Your task to perform on an android device: Open wifi settings Image 0: 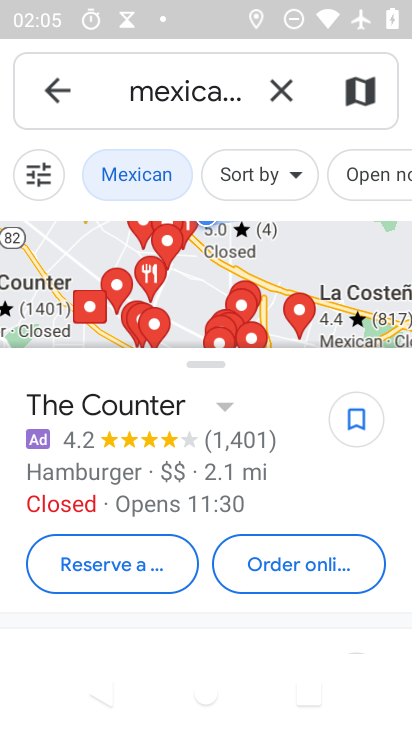
Step 0: press home button
Your task to perform on an android device: Open wifi settings Image 1: 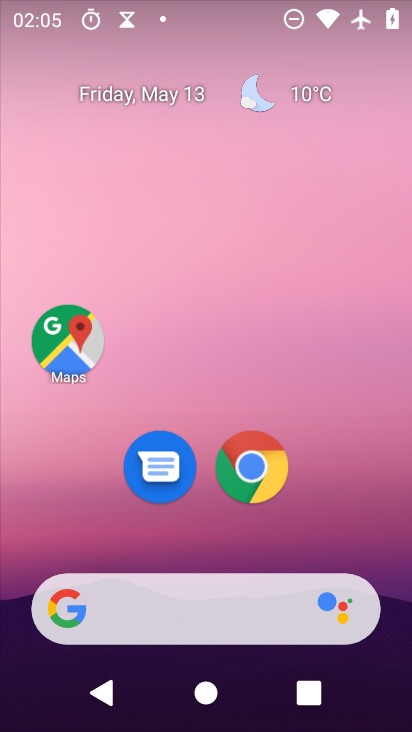
Step 1: drag from (338, 484) to (261, 34)
Your task to perform on an android device: Open wifi settings Image 2: 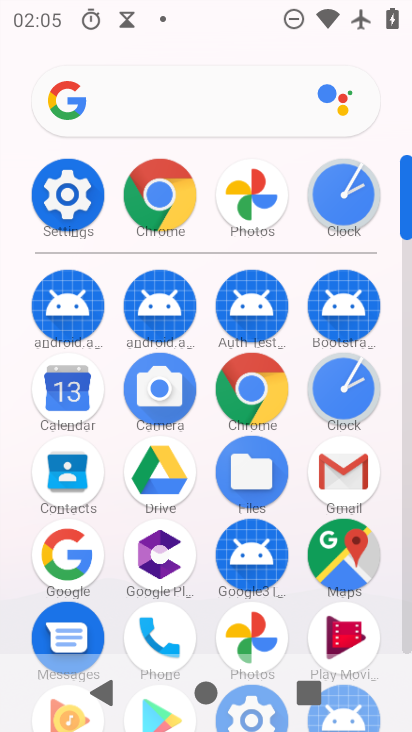
Step 2: click (72, 208)
Your task to perform on an android device: Open wifi settings Image 3: 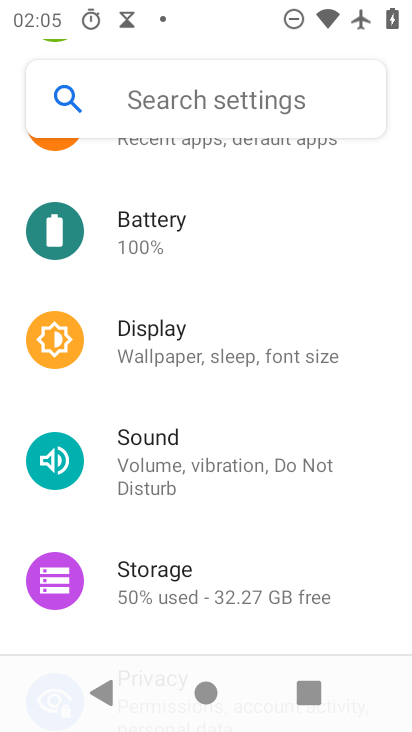
Step 3: drag from (219, 251) to (209, 590)
Your task to perform on an android device: Open wifi settings Image 4: 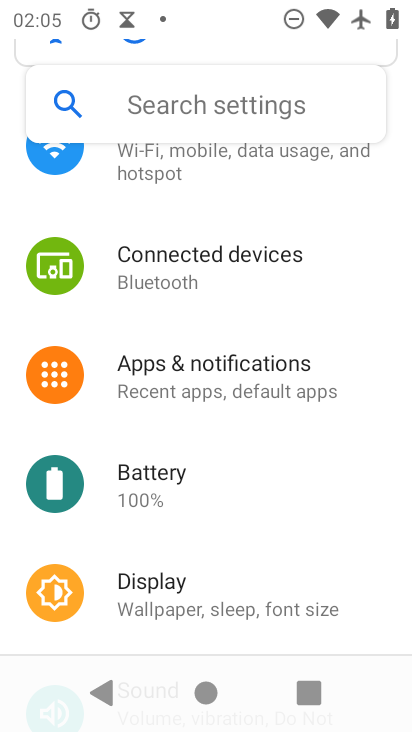
Step 4: drag from (212, 206) to (213, 527)
Your task to perform on an android device: Open wifi settings Image 5: 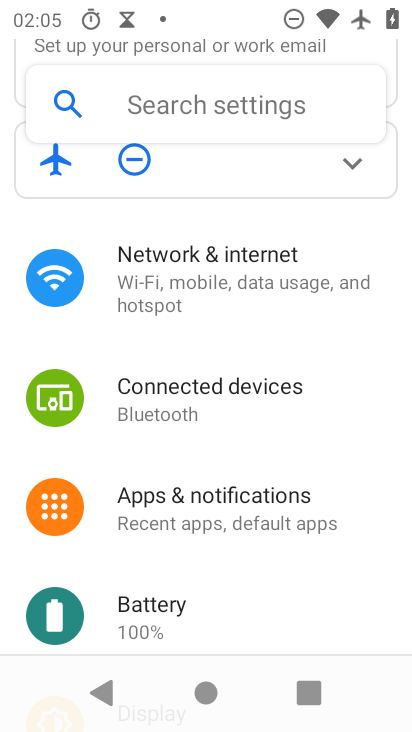
Step 5: click (215, 264)
Your task to perform on an android device: Open wifi settings Image 6: 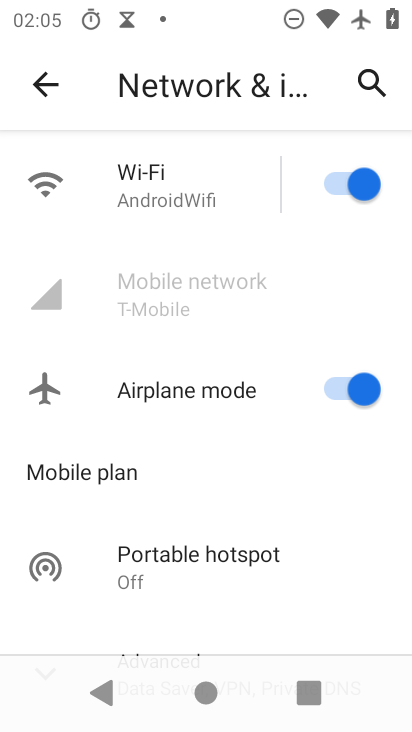
Step 6: click (175, 208)
Your task to perform on an android device: Open wifi settings Image 7: 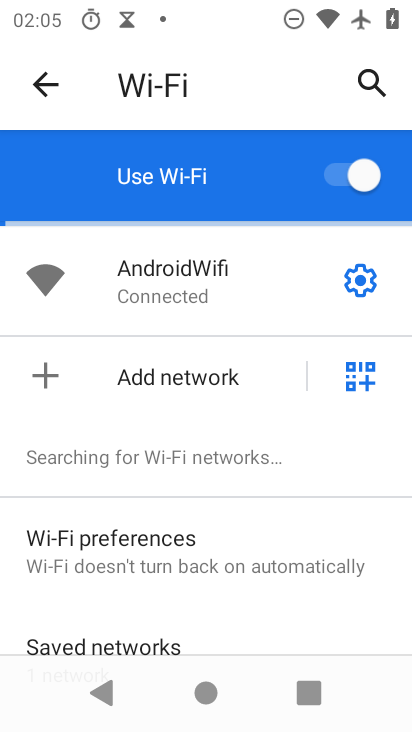
Step 7: task complete